Your task to perform on an android device: manage bookmarks in the chrome app Image 0: 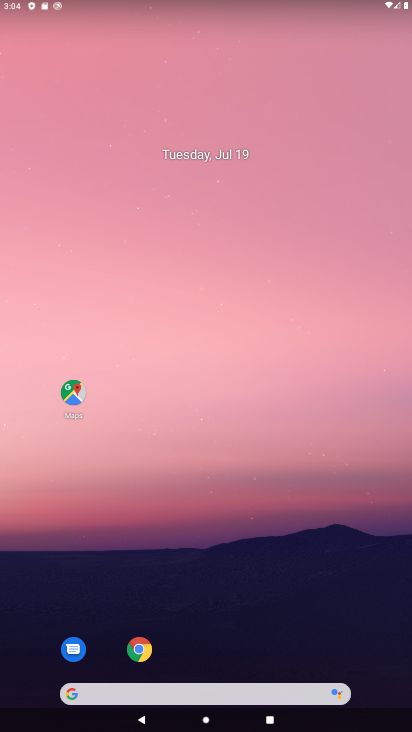
Step 0: click (139, 652)
Your task to perform on an android device: manage bookmarks in the chrome app Image 1: 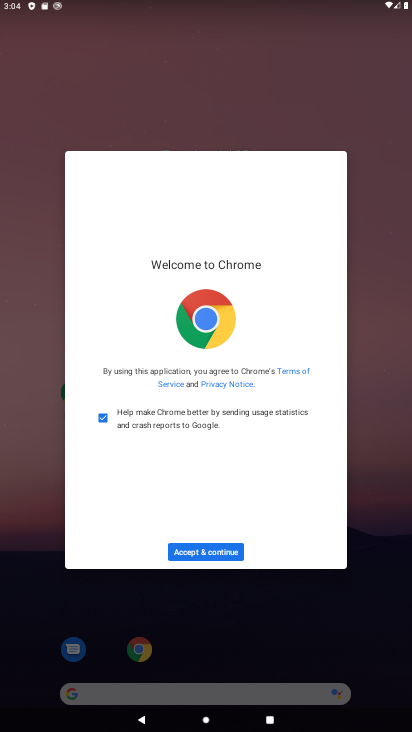
Step 1: click (188, 545)
Your task to perform on an android device: manage bookmarks in the chrome app Image 2: 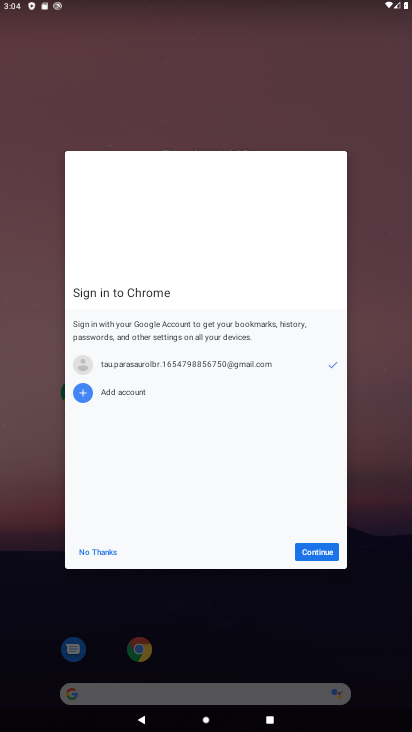
Step 2: click (319, 547)
Your task to perform on an android device: manage bookmarks in the chrome app Image 3: 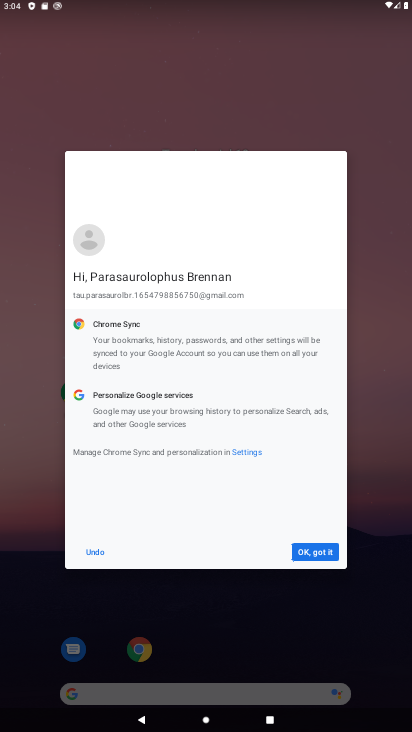
Step 3: click (319, 547)
Your task to perform on an android device: manage bookmarks in the chrome app Image 4: 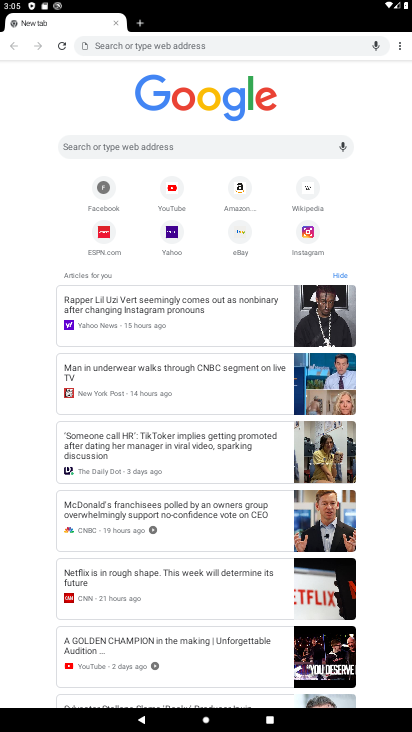
Step 4: click (394, 47)
Your task to perform on an android device: manage bookmarks in the chrome app Image 5: 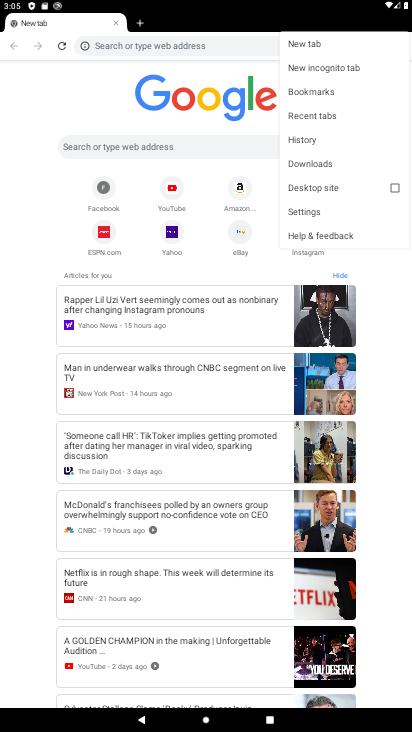
Step 5: click (303, 94)
Your task to perform on an android device: manage bookmarks in the chrome app Image 6: 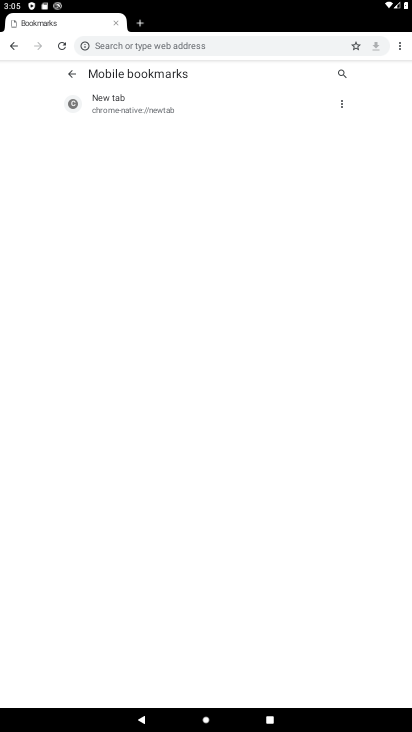
Step 6: click (347, 101)
Your task to perform on an android device: manage bookmarks in the chrome app Image 7: 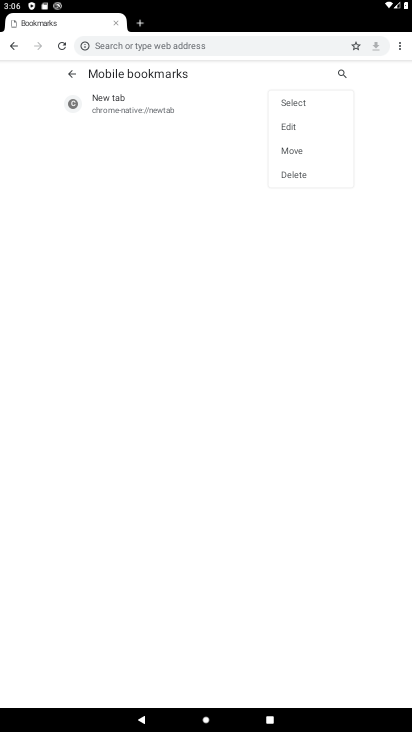
Step 7: click (285, 182)
Your task to perform on an android device: manage bookmarks in the chrome app Image 8: 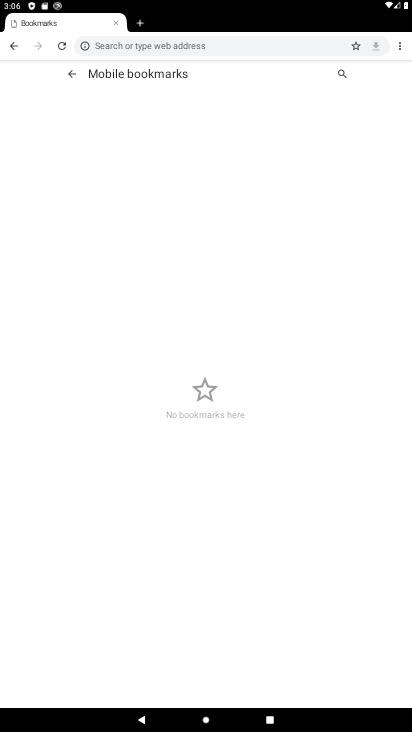
Step 8: task complete